Your task to perform on an android device: Search for Mexican restaurants on Maps Image 0: 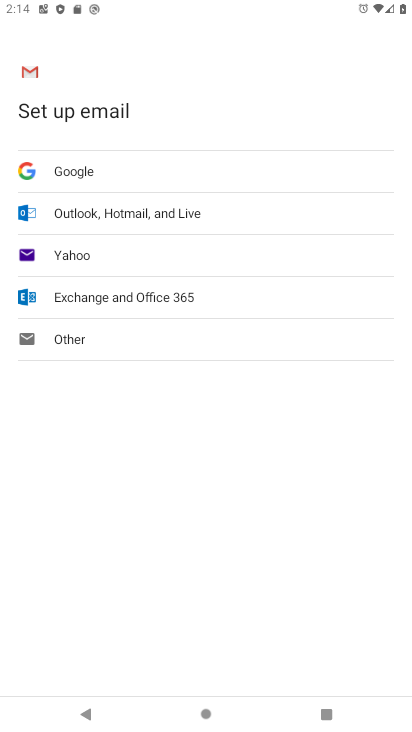
Step 0: press home button
Your task to perform on an android device: Search for Mexican restaurants on Maps Image 1: 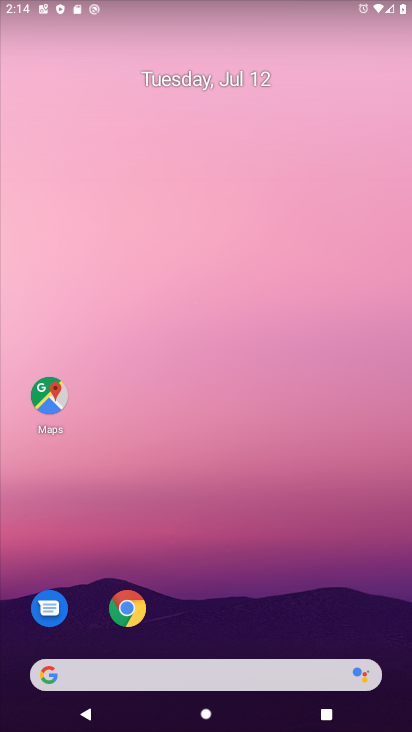
Step 1: drag from (223, 622) to (238, 52)
Your task to perform on an android device: Search for Mexican restaurants on Maps Image 2: 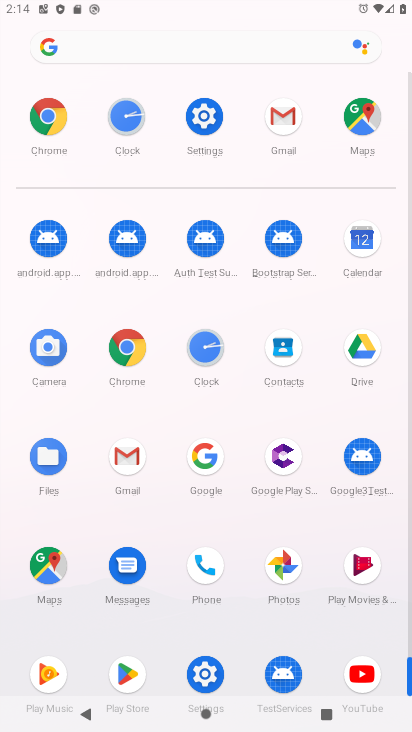
Step 2: click (371, 111)
Your task to perform on an android device: Search for Mexican restaurants on Maps Image 3: 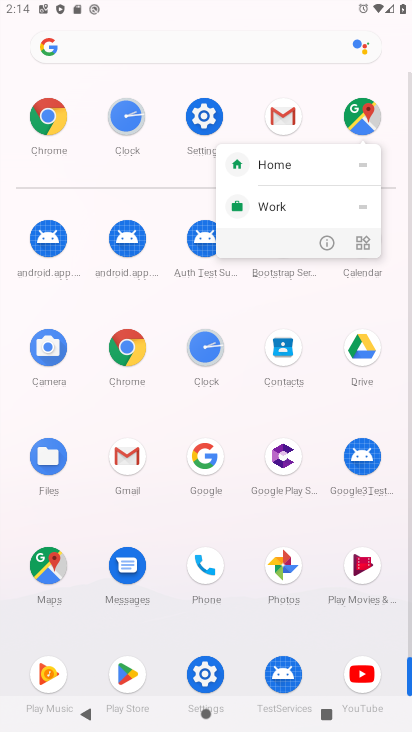
Step 3: click (365, 118)
Your task to perform on an android device: Search for Mexican restaurants on Maps Image 4: 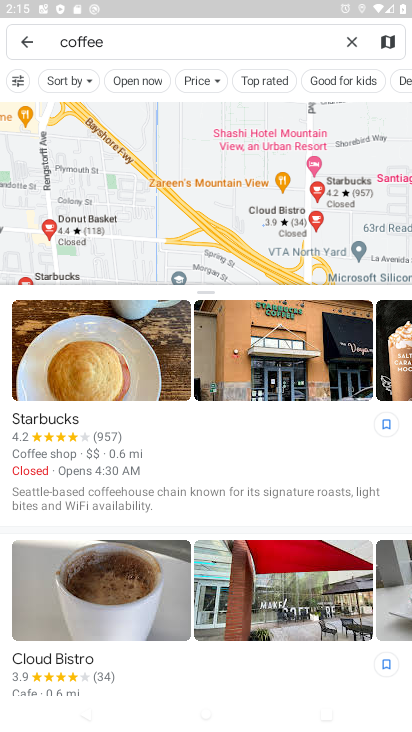
Step 4: click (258, 32)
Your task to perform on an android device: Search for Mexican restaurants on Maps Image 5: 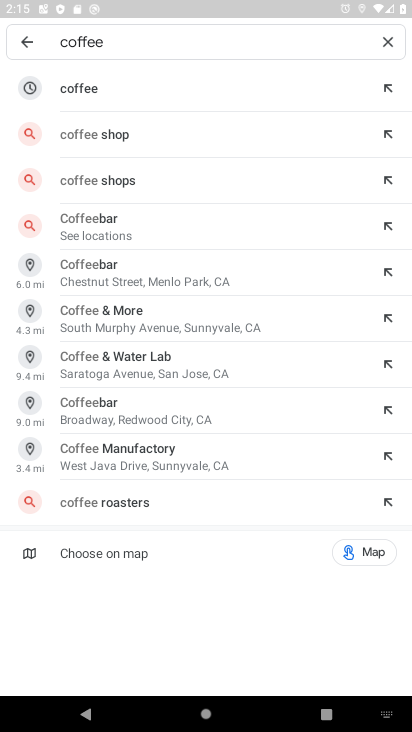
Step 5: click (387, 38)
Your task to perform on an android device: Search for Mexican restaurants on Maps Image 6: 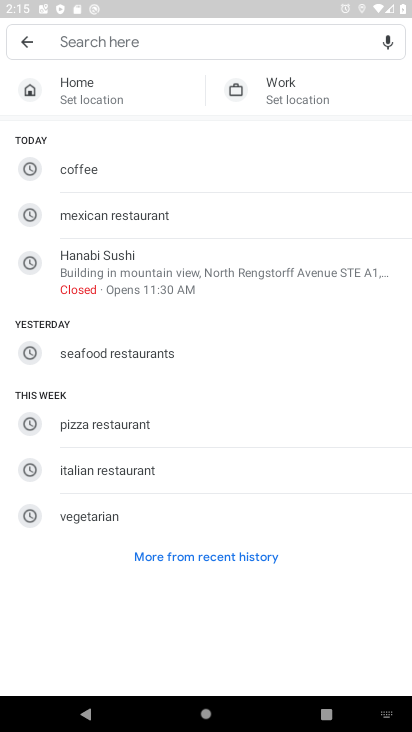
Step 6: type "Mexican restaurants"
Your task to perform on an android device: Search for Mexican restaurants on Maps Image 7: 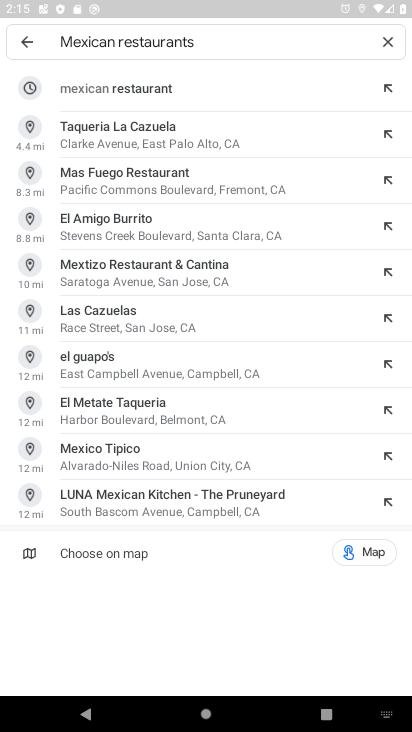
Step 7: press enter
Your task to perform on an android device: Search for Mexican restaurants on Maps Image 8: 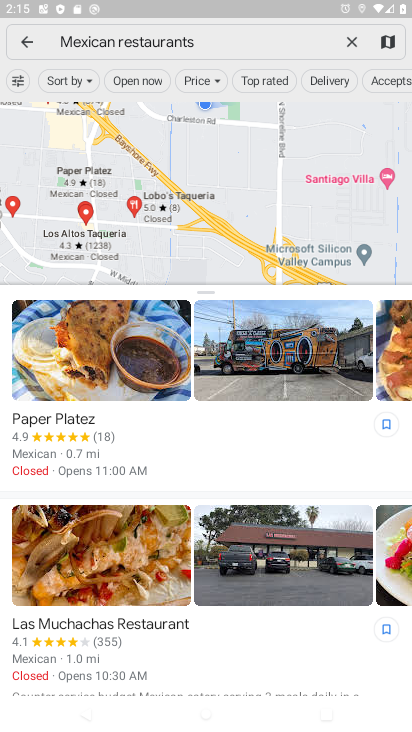
Step 8: task complete